Your task to perform on an android device: toggle wifi Image 0: 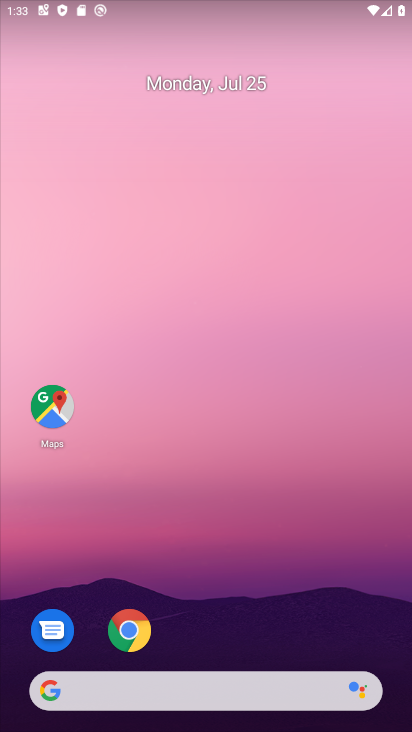
Step 0: drag from (273, 659) to (269, 17)
Your task to perform on an android device: toggle wifi Image 1: 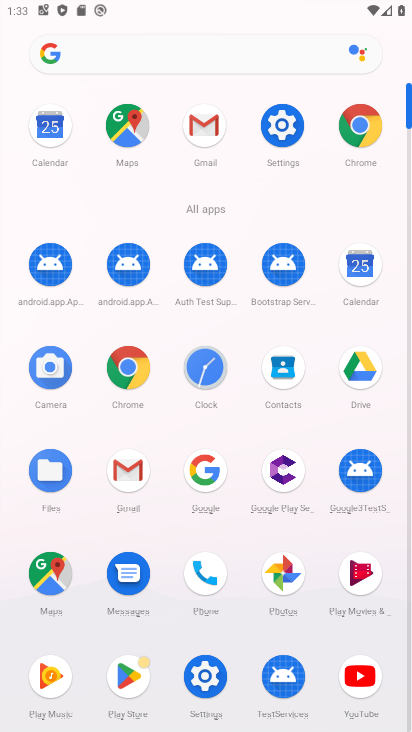
Step 1: click (211, 670)
Your task to perform on an android device: toggle wifi Image 2: 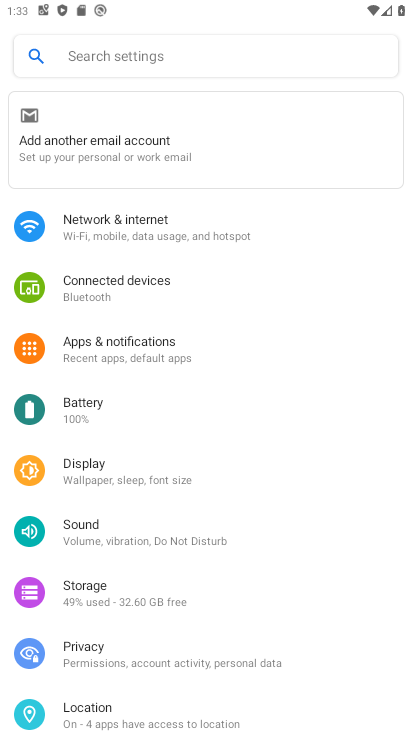
Step 2: click (122, 251)
Your task to perform on an android device: toggle wifi Image 3: 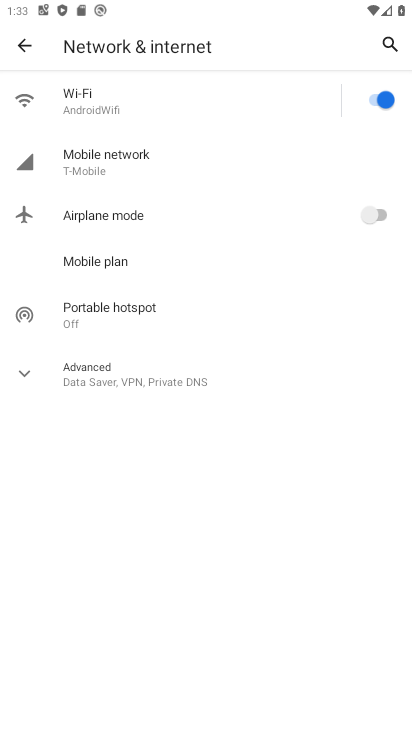
Step 3: task complete